Your task to perform on an android device: add a contact Image 0: 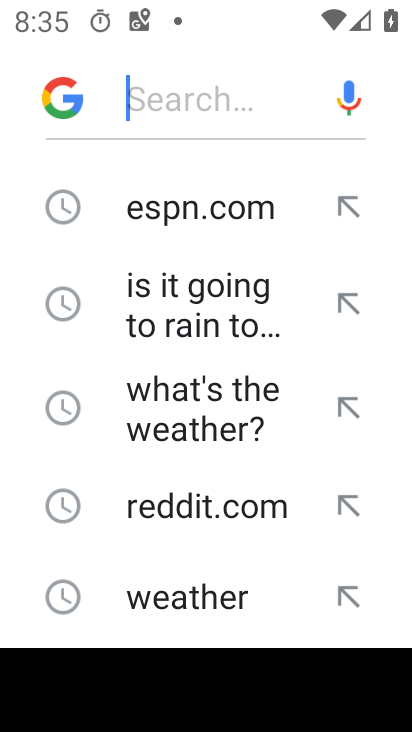
Step 0: press home button
Your task to perform on an android device: add a contact Image 1: 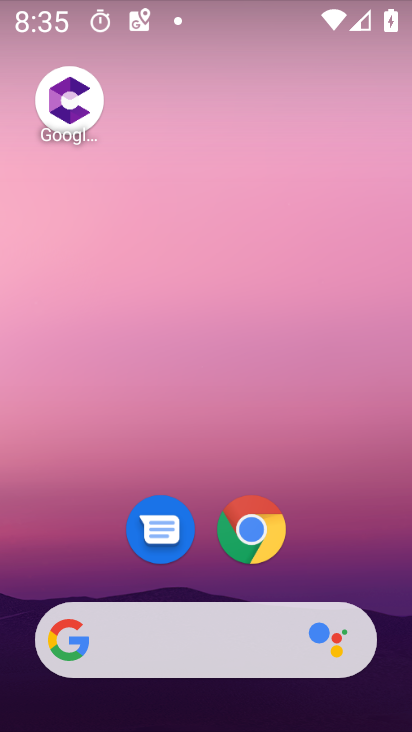
Step 1: drag from (213, 575) to (226, 74)
Your task to perform on an android device: add a contact Image 2: 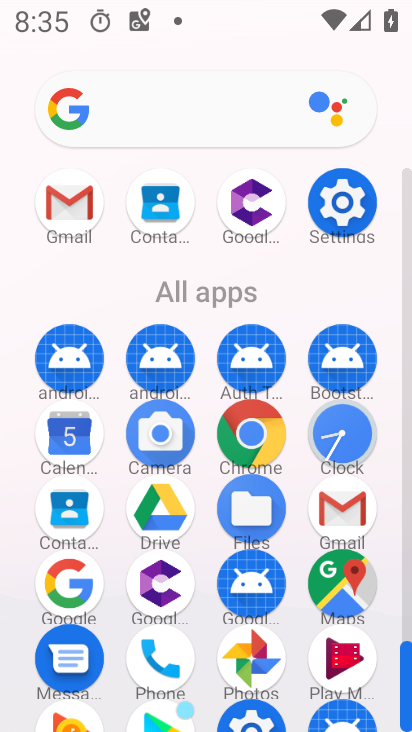
Step 2: click (158, 196)
Your task to perform on an android device: add a contact Image 3: 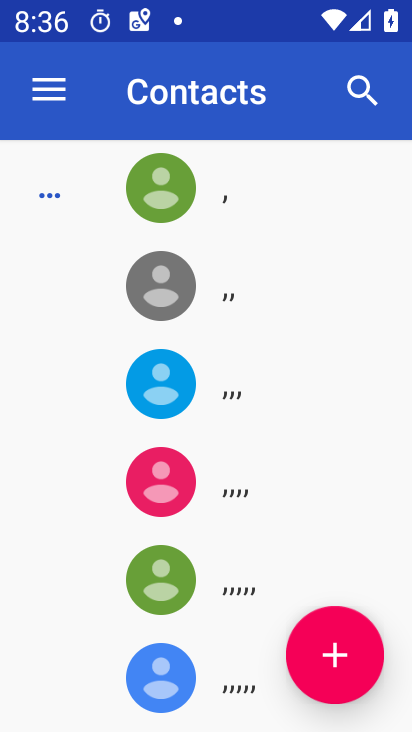
Step 3: click (328, 650)
Your task to perform on an android device: add a contact Image 4: 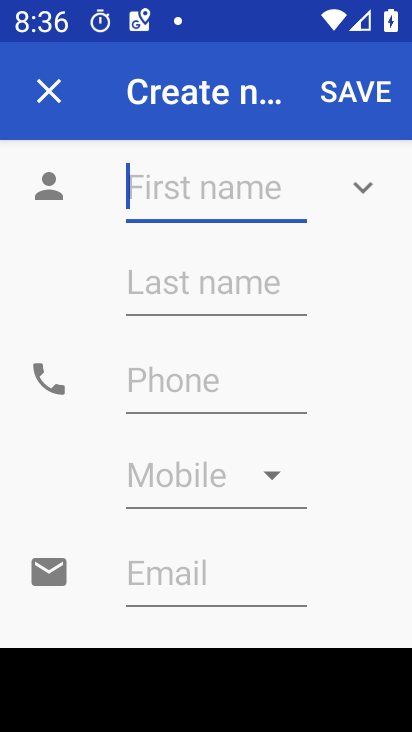
Step 4: type "gfryhvg"
Your task to perform on an android device: add a contact Image 5: 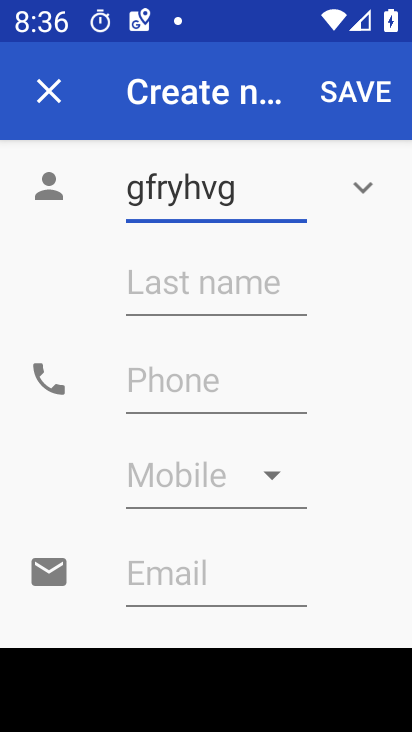
Step 5: click (360, 110)
Your task to perform on an android device: add a contact Image 6: 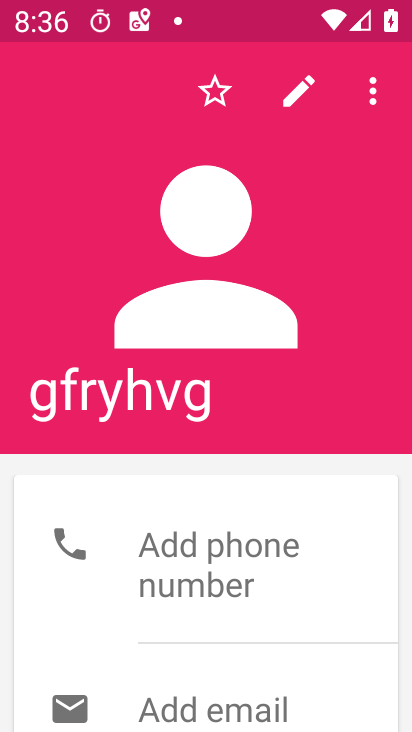
Step 6: task complete